Your task to perform on an android device: What's the weather going to be tomorrow? Image 0: 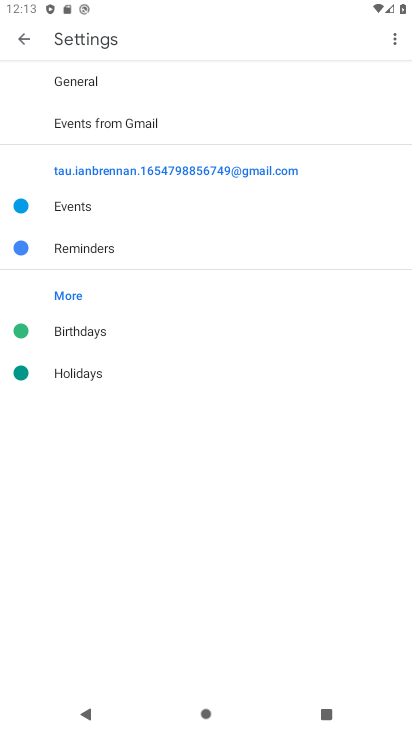
Step 0: press home button
Your task to perform on an android device: What's the weather going to be tomorrow? Image 1: 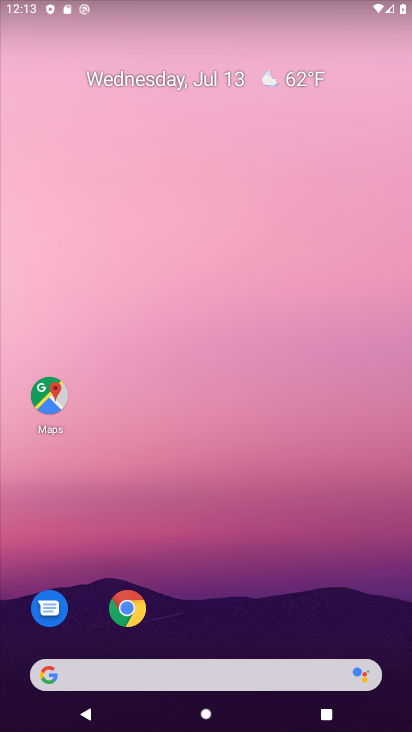
Step 1: drag from (338, 592) to (355, 77)
Your task to perform on an android device: What's the weather going to be tomorrow? Image 2: 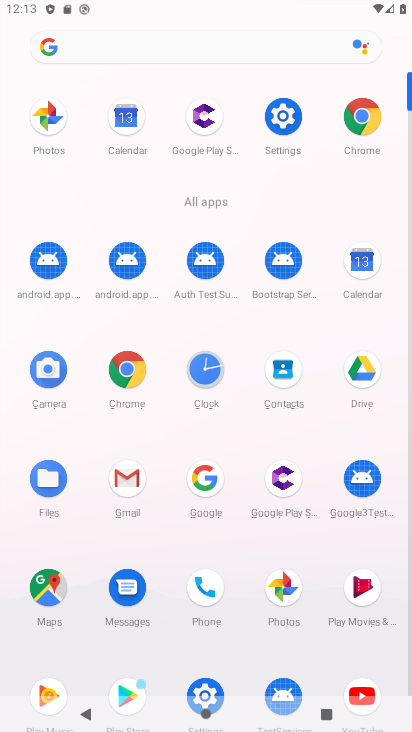
Step 2: click (183, 42)
Your task to perform on an android device: What's the weather going to be tomorrow? Image 3: 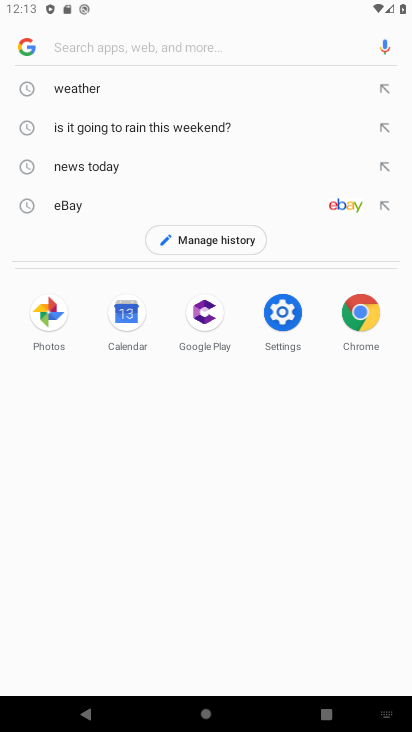
Step 3: click (100, 87)
Your task to perform on an android device: What's the weather going to be tomorrow? Image 4: 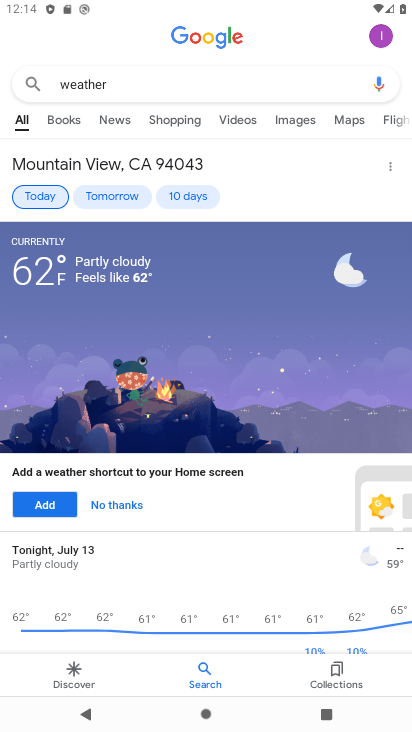
Step 4: task complete